Your task to perform on an android device: set an alarm Image 0: 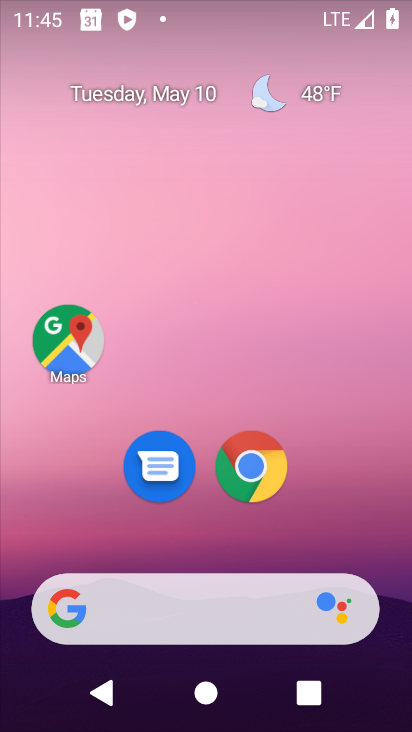
Step 0: drag from (208, 512) to (312, 15)
Your task to perform on an android device: set an alarm Image 1: 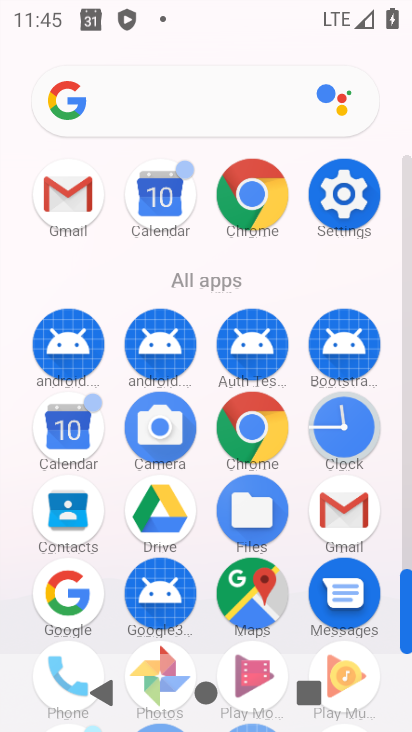
Step 1: click (341, 434)
Your task to perform on an android device: set an alarm Image 2: 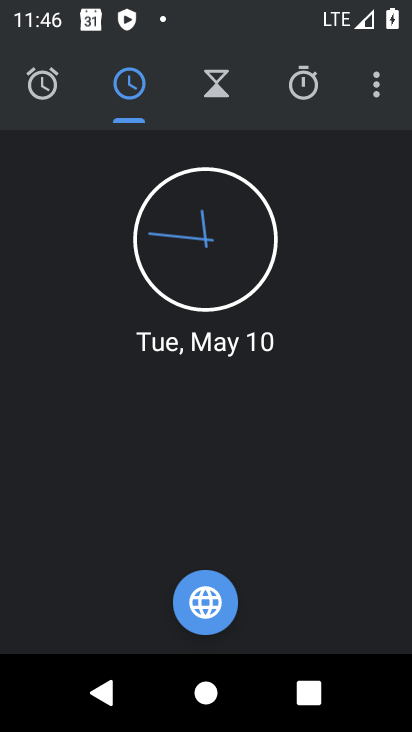
Step 2: click (62, 78)
Your task to perform on an android device: set an alarm Image 3: 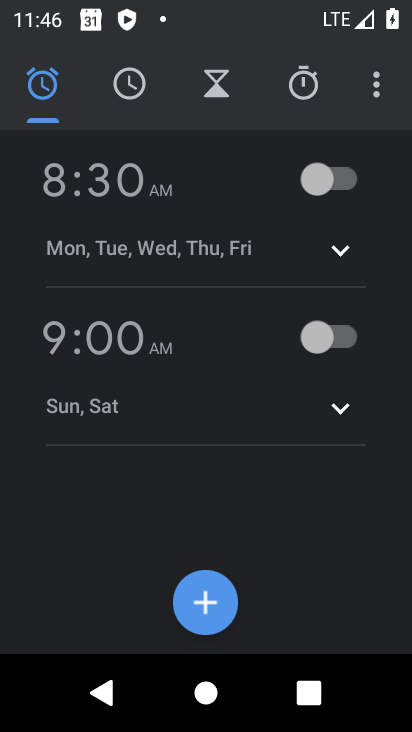
Step 3: click (327, 183)
Your task to perform on an android device: set an alarm Image 4: 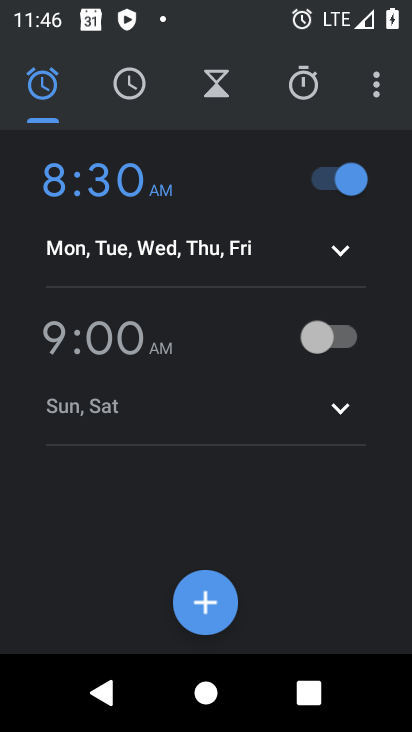
Step 4: task complete